Your task to perform on an android device: Open maps Image 0: 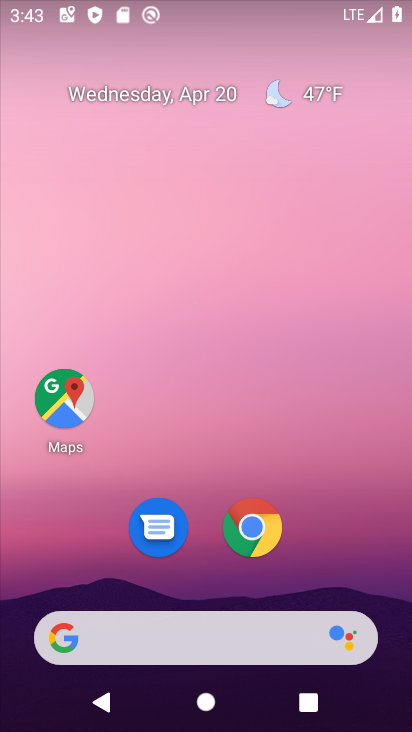
Step 0: click (59, 398)
Your task to perform on an android device: Open maps Image 1: 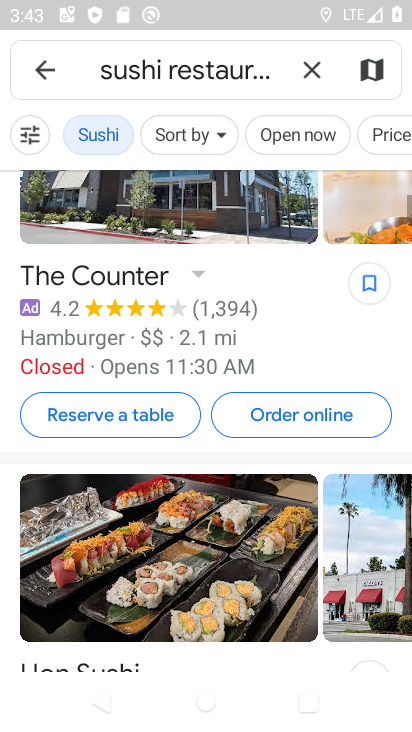
Step 1: task complete